Your task to perform on an android device: visit the assistant section in the google photos Image 0: 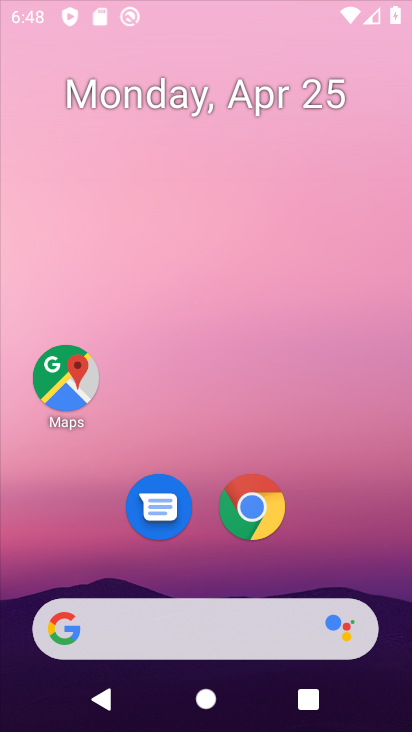
Step 0: click (367, 25)
Your task to perform on an android device: visit the assistant section in the google photos Image 1: 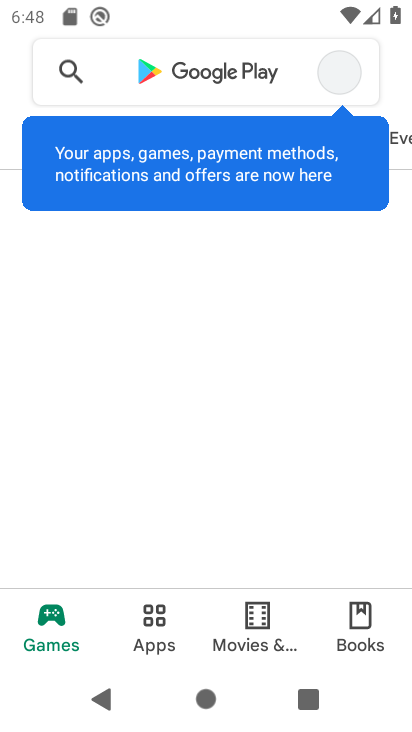
Step 1: press home button
Your task to perform on an android device: visit the assistant section in the google photos Image 2: 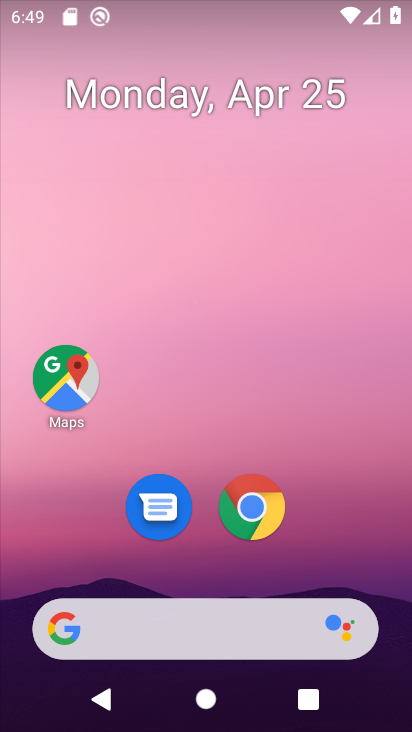
Step 2: drag from (336, 556) to (281, 66)
Your task to perform on an android device: visit the assistant section in the google photos Image 3: 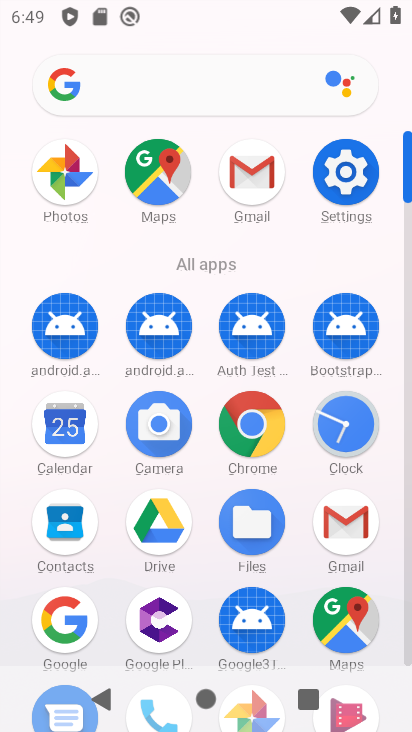
Step 3: click (67, 170)
Your task to perform on an android device: visit the assistant section in the google photos Image 4: 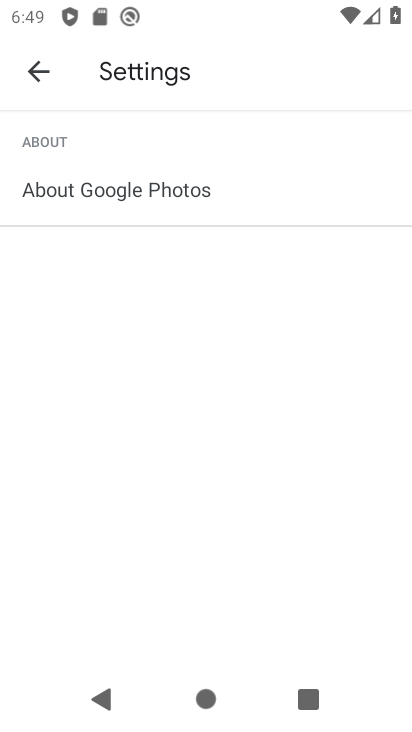
Step 4: click (43, 61)
Your task to perform on an android device: visit the assistant section in the google photos Image 5: 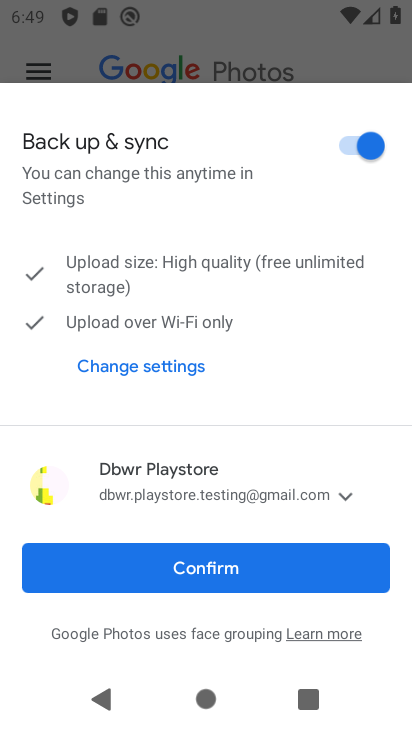
Step 5: click (102, 554)
Your task to perform on an android device: visit the assistant section in the google photos Image 6: 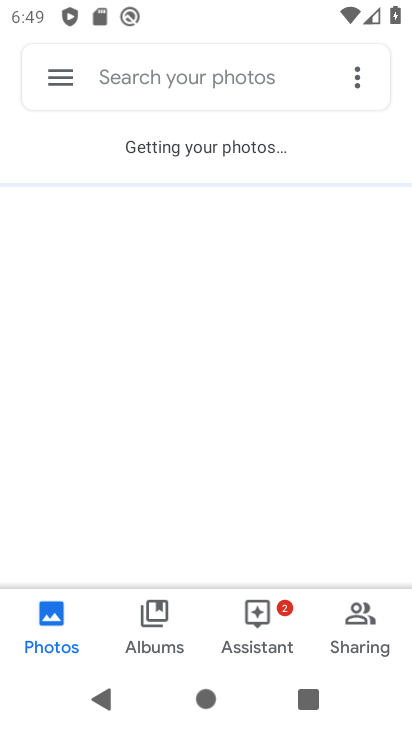
Step 6: click (266, 621)
Your task to perform on an android device: visit the assistant section in the google photos Image 7: 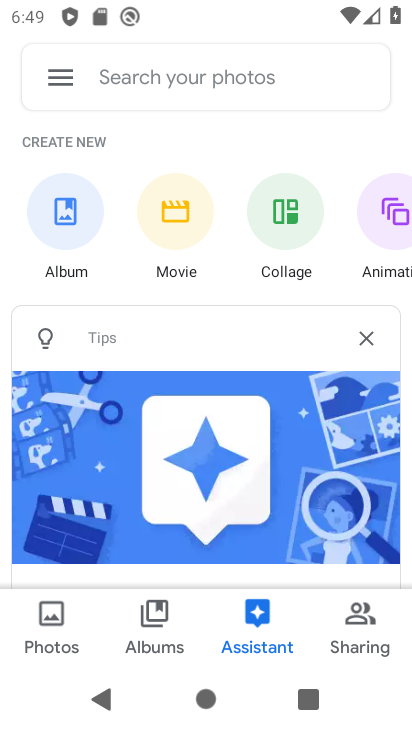
Step 7: task complete